Your task to perform on an android device: Add panasonic triple a to the cart on bestbuy.com Image 0: 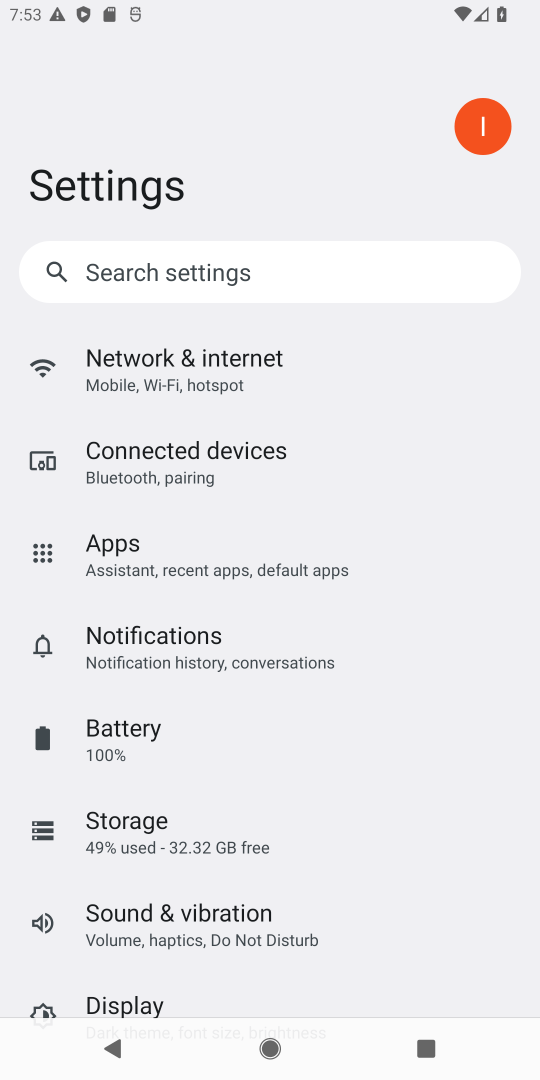
Step 0: press home button
Your task to perform on an android device: Add panasonic triple a to the cart on bestbuy.com Image 1: 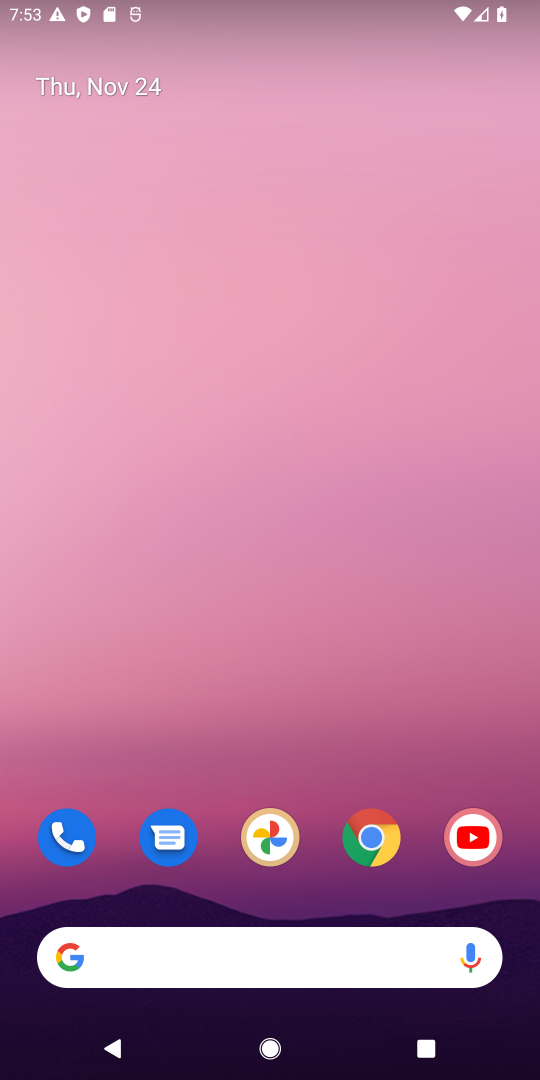
Step 1: click (362, 838)
Your task to perform on an android device: Add panasonic triple a to the cart on bestbuy.com Image 2: 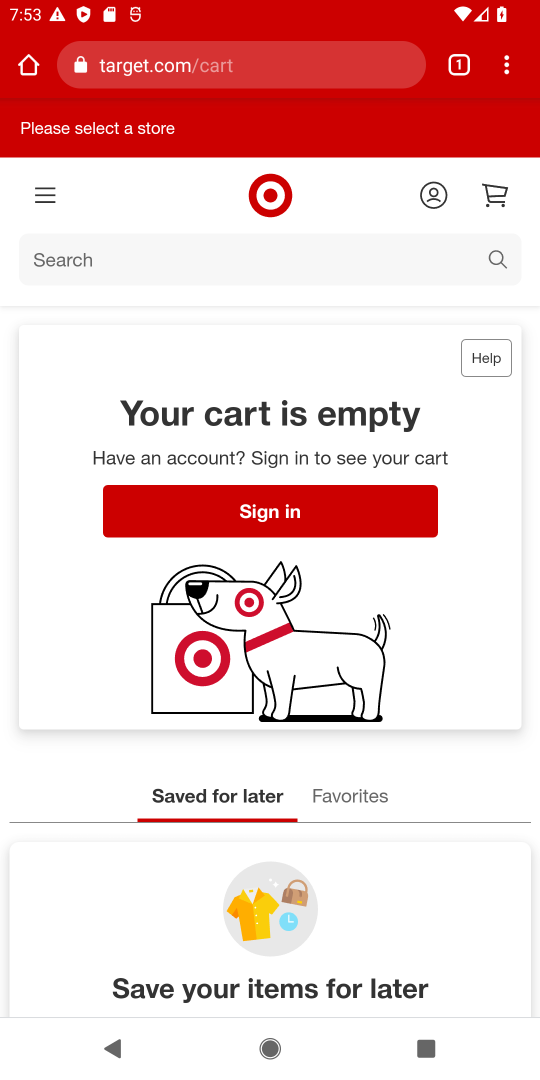
Step 2: click (270, 68)
Your task to perform on an android device: Add panasonic triple a to the cart on bestbuy.com Image 3: 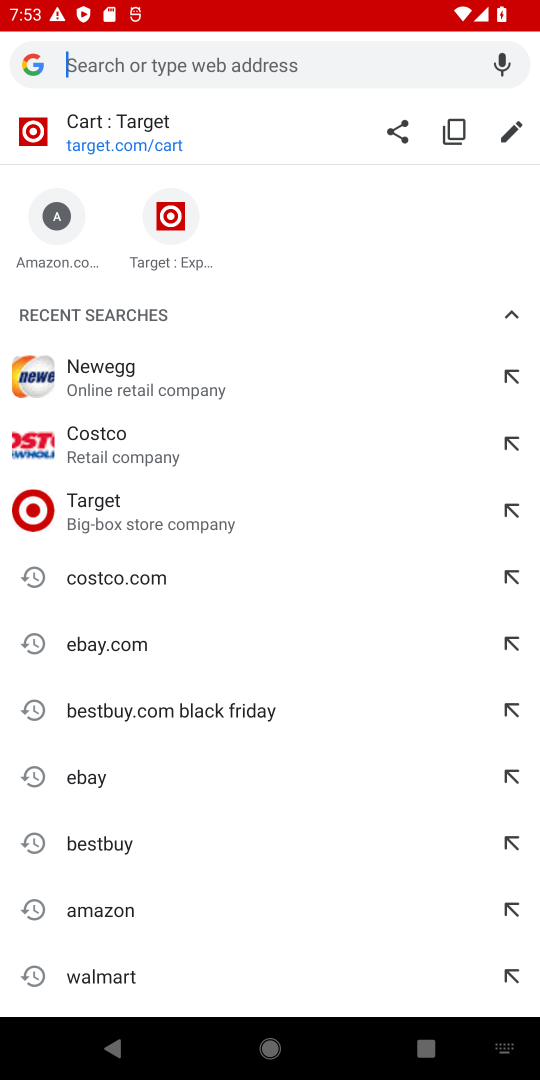
Step 3: type "bestbuy.com"
Your task to perform on an android device: Add panasonic triple a to the cart on bestbuy.com Image 4: 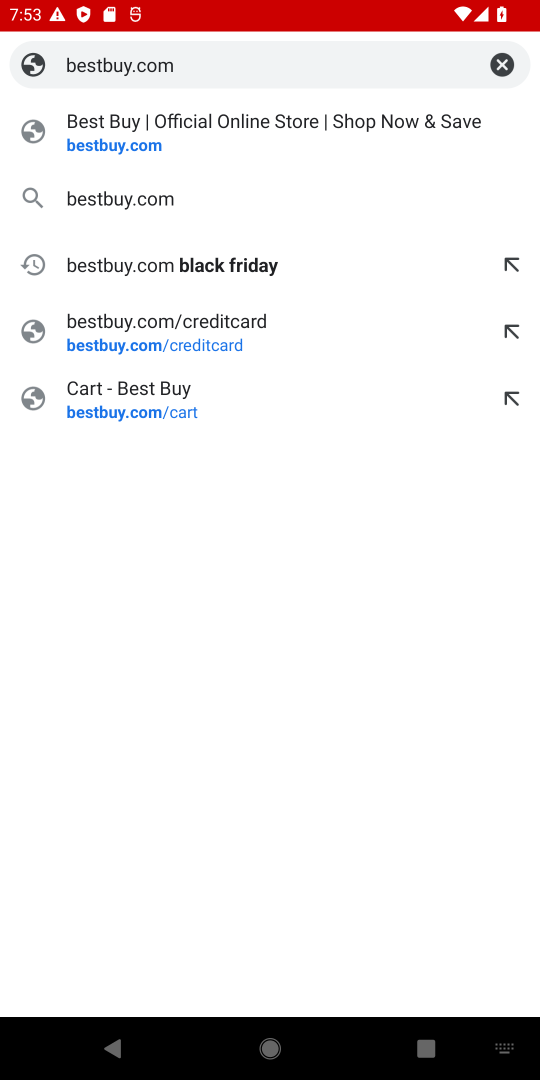
Step 4: click (156, 138)
Your task to perform on an android device: Add panasonic triple a to the cart on bestbuy.com Image 5: 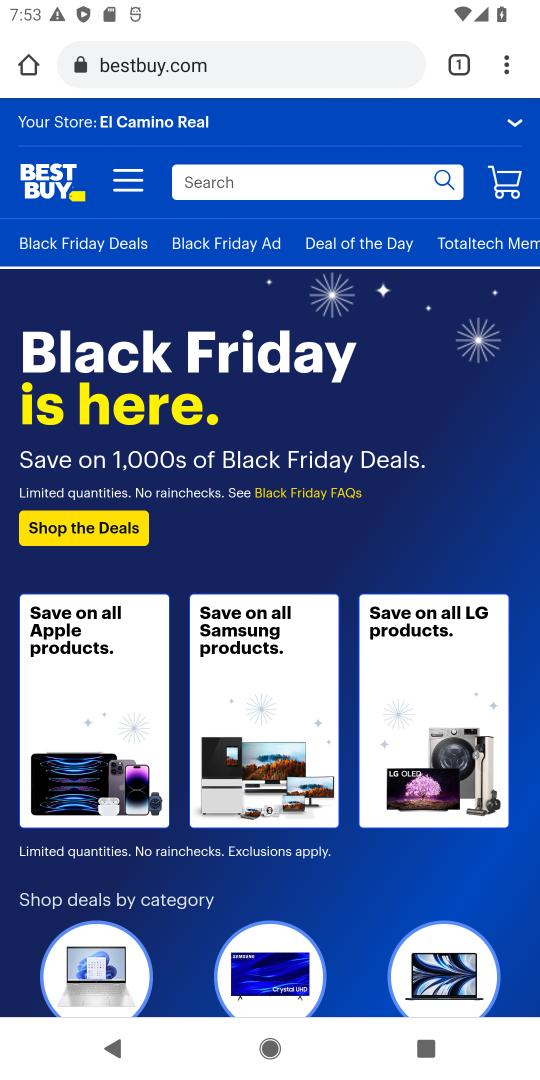
Step 5: click (316, 182)
Your task to perform on an android device: Add panasonic triple a to the cart on bestbuy.com Image 6: 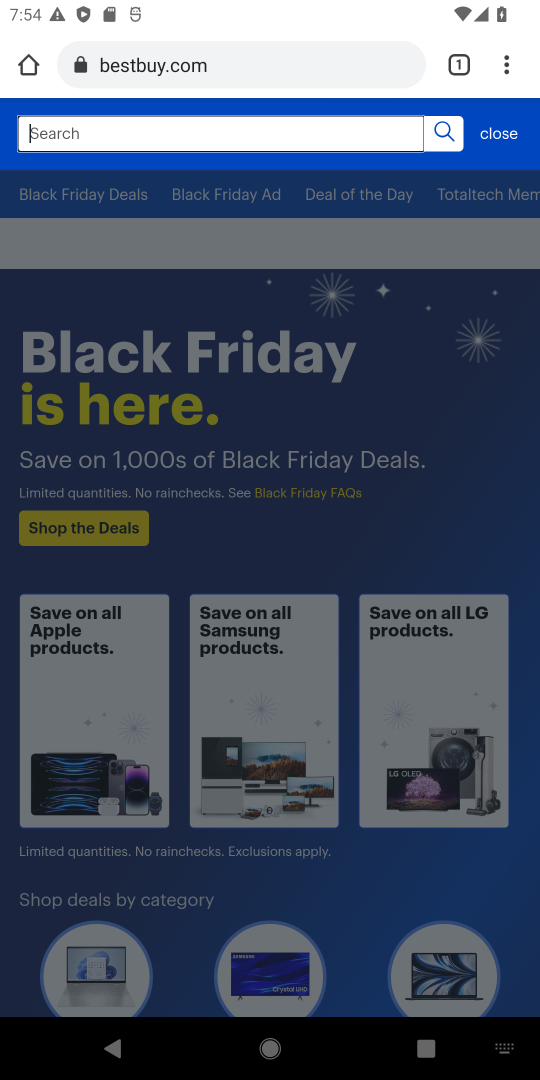
Step 6: type "Panasonic tripe a "
Your task to perform on an android device: Add panasonic triple a to the cart on bestbuy.com Image 7: 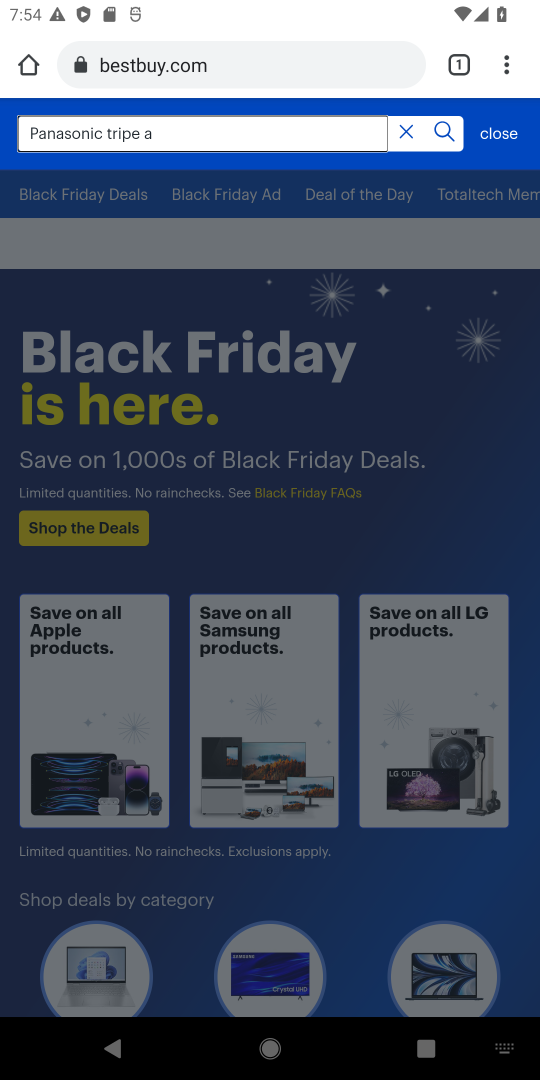
Step 7: click (432, 135)
Your task to perform on an android device: Add panasonic triple a to the cart on bestbuy.com Image 8: 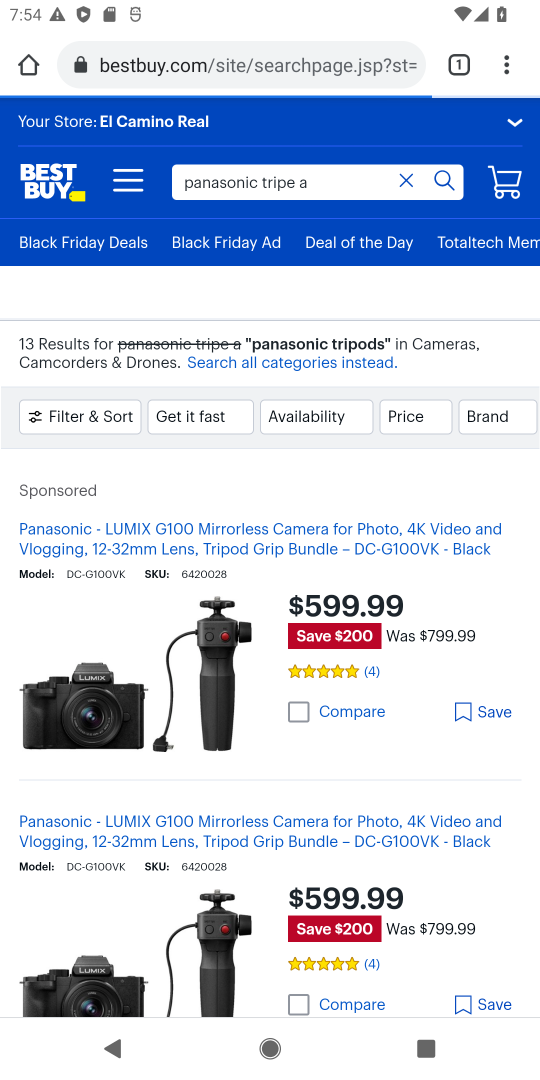
Step 8: click (384, 440)
Your task to perform on an android device: Add panasonic triple a to the cart on bestbuy.com Image 9: 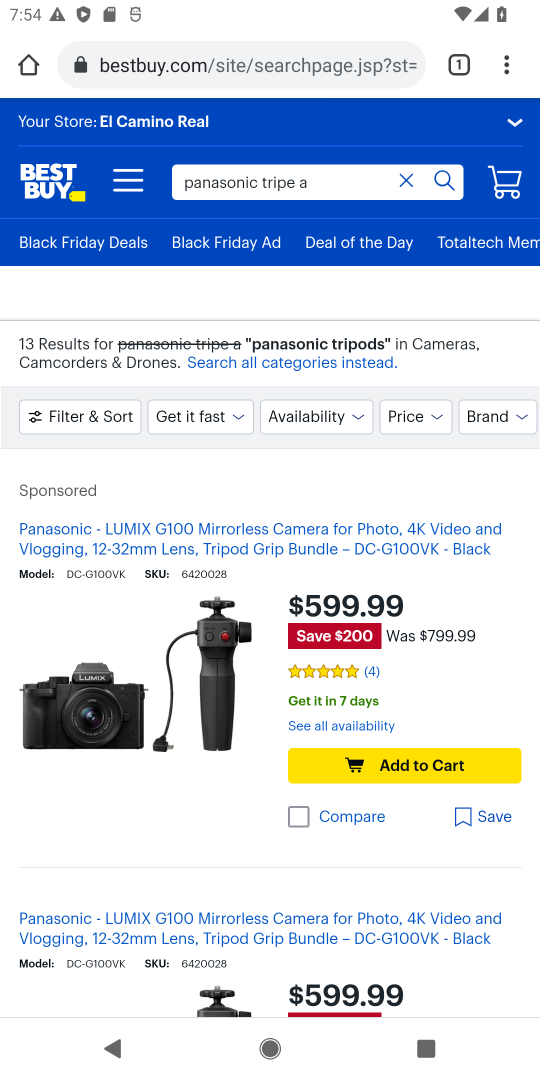
Step 9: task complete